Your task to perform on an android device: check data usage Image 0: 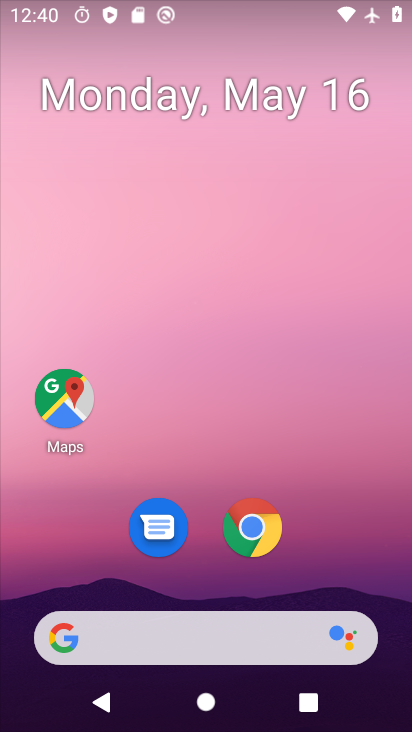
Step 0: press home button
Your task to perform on an android device: check data usage Image 1: 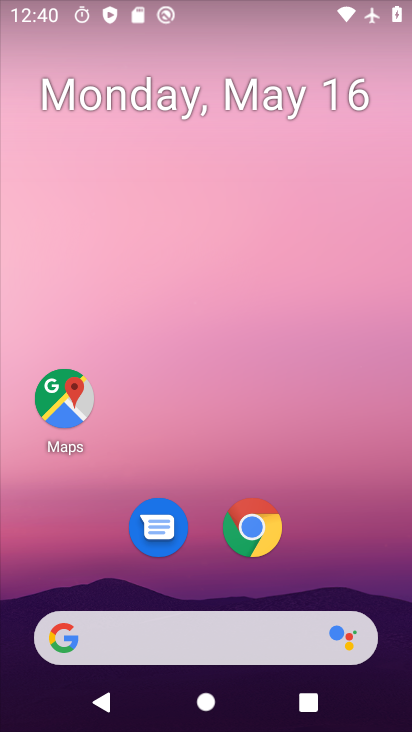
Step 1: drag from (154, 653) to (273, 247)
Your task to perform on an android device: check data usage Image 2: 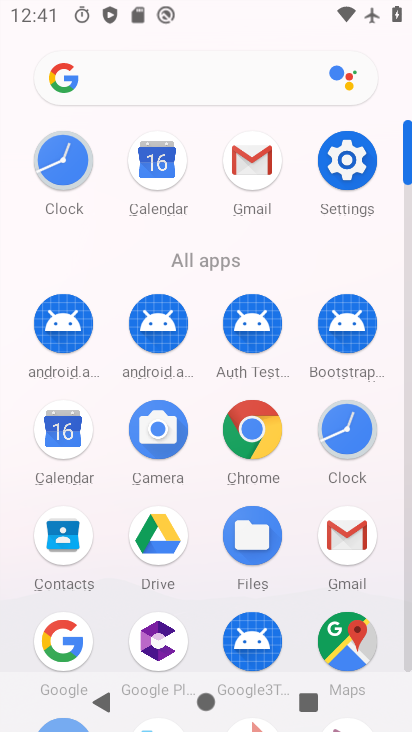
Step 2: click (345, 170)
Your task to perform on an android device: check data usage Image 3: 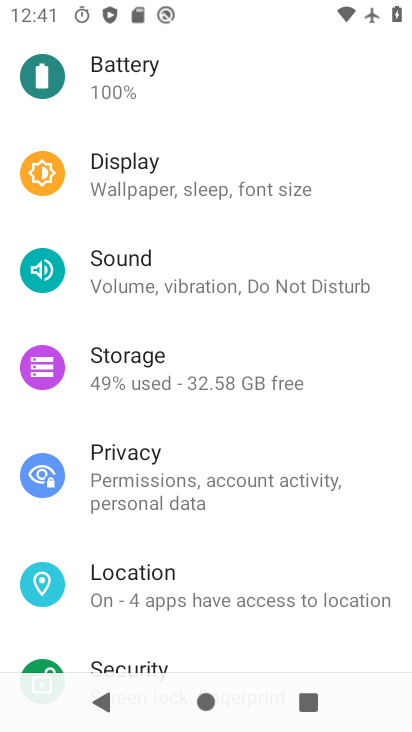
Step 3: drag from (264, 124) to (144, 608)
Your task to perform on an android device: check data usage Image 4: 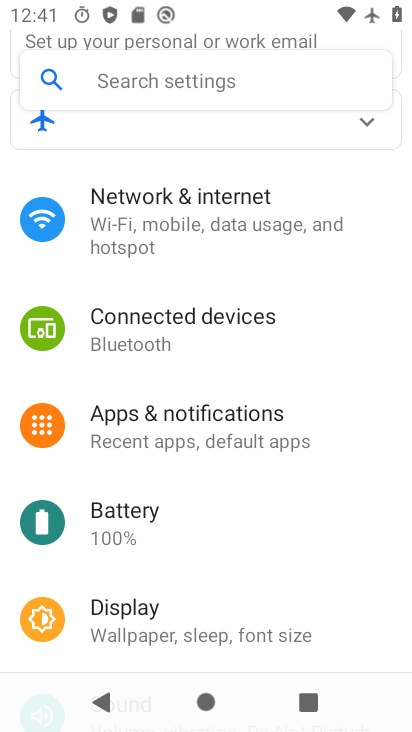
Step 4: click (199, 217)
Your task to perform on an android device: check data usage Image 5: 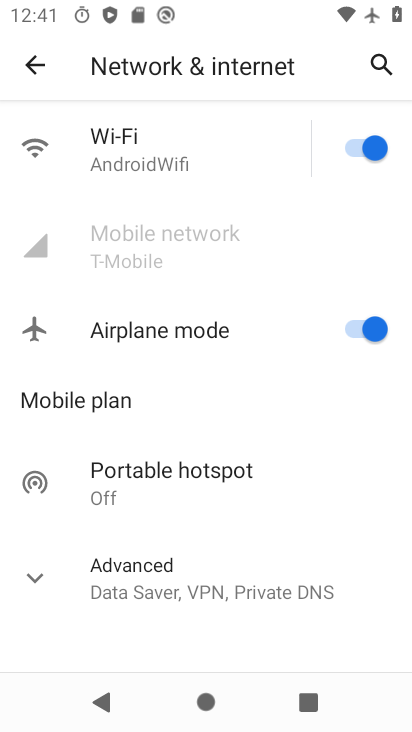
Step 5: click (184, 154)
Your task to perform on an android device: check data usage Image 6: 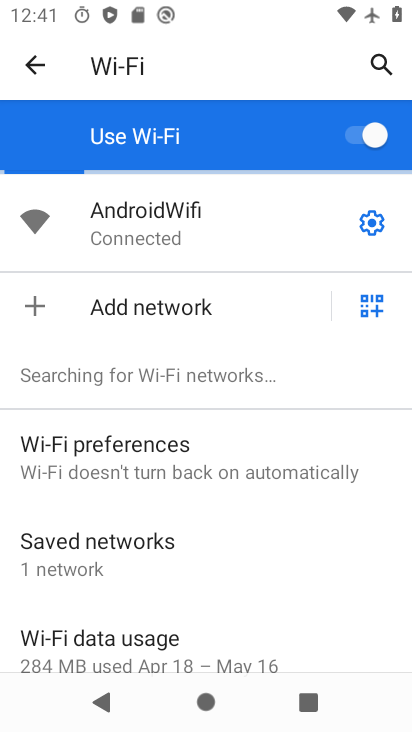
Step 6: drag from (188, 598) to (377, 135)
Your task to perform on an android device: check data usage Image 7: 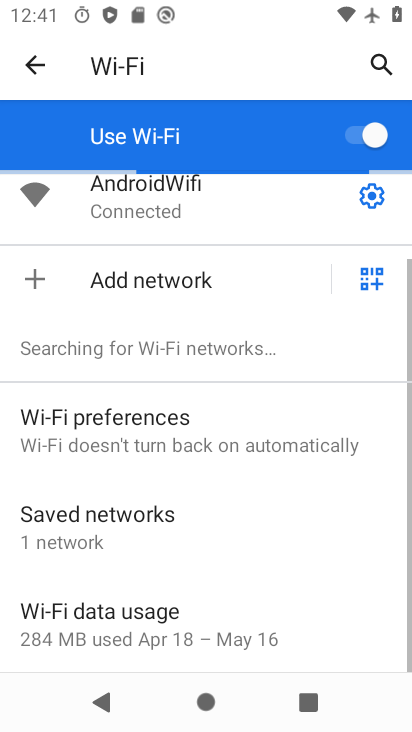
Step 7: click (90, 618)
Your task to perform on an android device: check data usage Image 8: 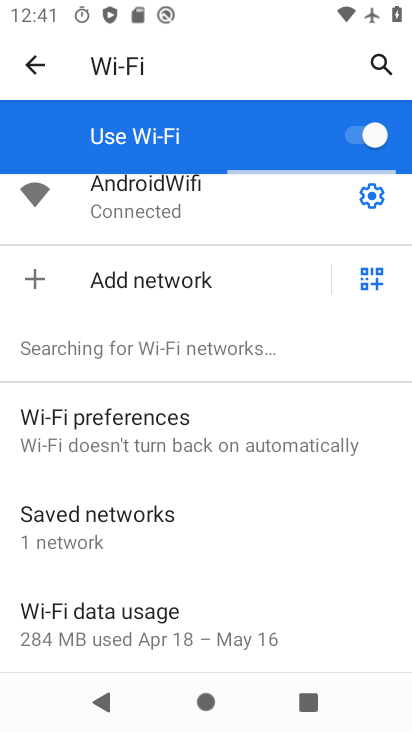
Step 8: click (131, 623)
Your task to perform on an android device: check data usage Image 9: 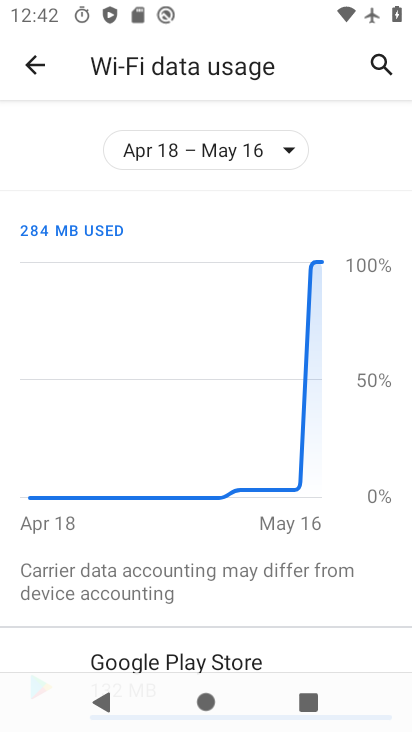
Step 9: task complete